Your task to perform on an android device: Go to Maps Image 0: 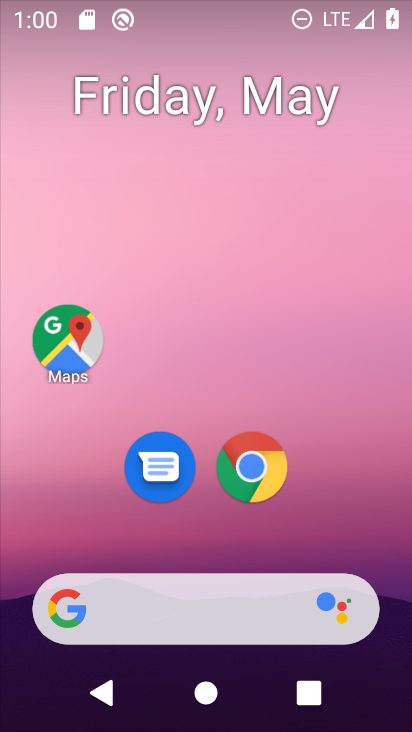
Step 0: drag from (301, 588) to (277, 37)
Your task to perform on an android device: Go to Maps Image 1: 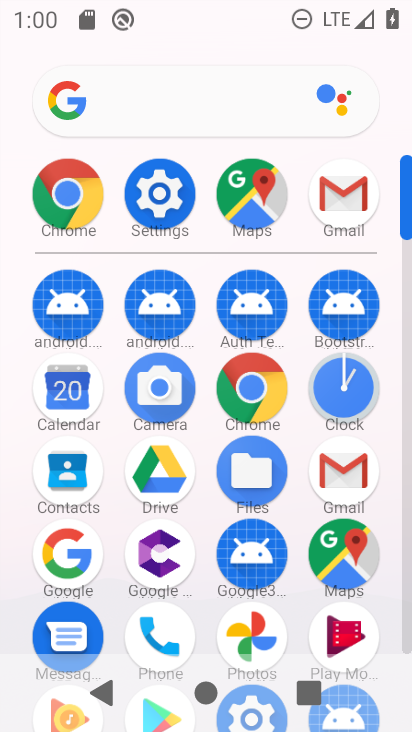
Step 1: click (332, 541)
Your task to perform on an android device: Go to Maps Image 2: 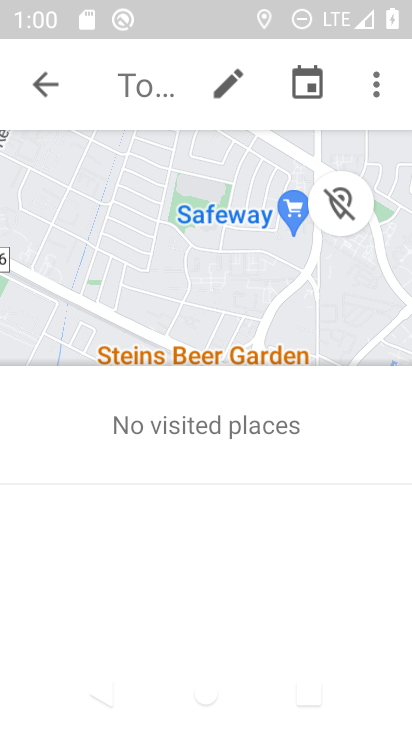
Step 2: task complete